Your task to perform on an android device: Clear all items from cart on ebay. Search for macbook on ebay, select the first entry, add it to the cart, then select checkout. Image 0: 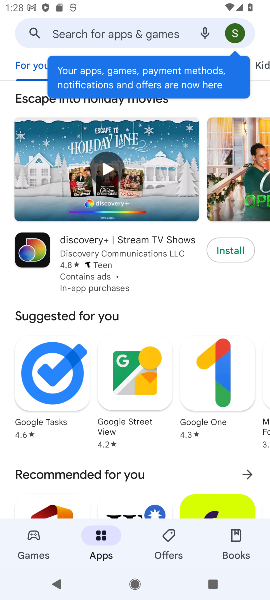
Step 0: press home button
Your task to perform on an android device: Clear all items from cart on ebay. Search for macbook on ebay, select the first entry, add it to the cart, then select checkout. Image 1: 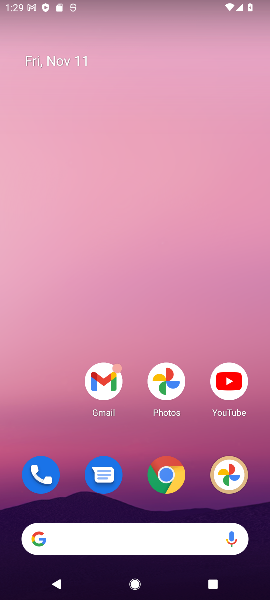
Step 1: drag from (132, 476) to (19, 27)
Your task to perform on an android device: Clear all items from cart on ebay. Search for macbook on ebay, select the first entry, add it to the cart, then select checkout. Image 2: 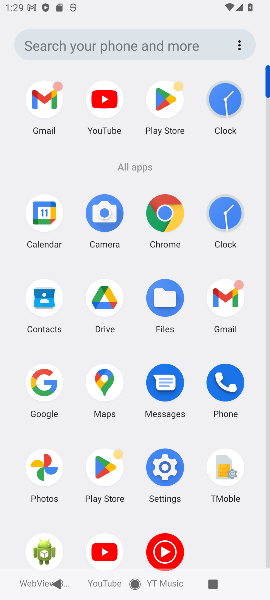
Step 2: click (155, 225)
Your task to perform on an android device: Clear all items from cart on ebay. Search for macbook on ebay, select the first entry, add it to the cart, then select checkout. Image 3: 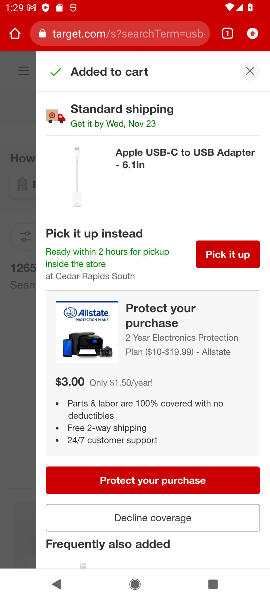
Step 3: click (81, 42)
Your task to perform on an android device: Clear all items from cart on ebay. Search for macbook on ebay, select the first entry, add it to the cart, then select checkout. Image 4: 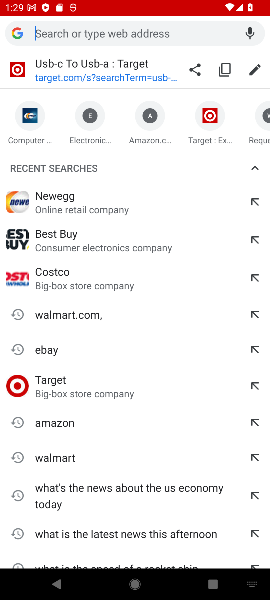
Step 4: type "ebay"
Your task to perform on an android device: Clear all items from cart on ebay. Search for macbook on ebay, select the first entry, add it to the cart, then select checkout. Image 5: 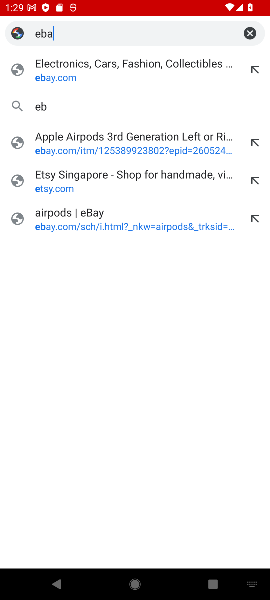
Step 5: press enter
Your task to perform on an android device: Clear all items from cart on ebay. Search for macbook on ebay, select the first entry, add it to the cart, then select checkout. Image 6: 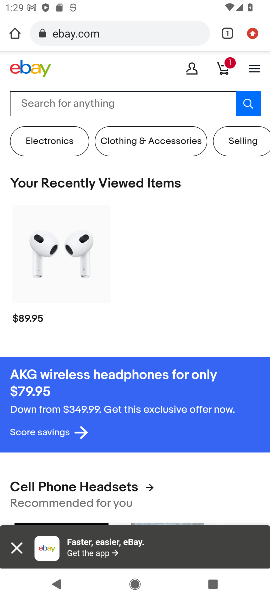
Step 6: click (226, 64)
Your task to perform on an android device: Clear all items from cart on ebay. Search for macbook on ebay, select the first entry, add it to the cart, then select checkout. Image 7: 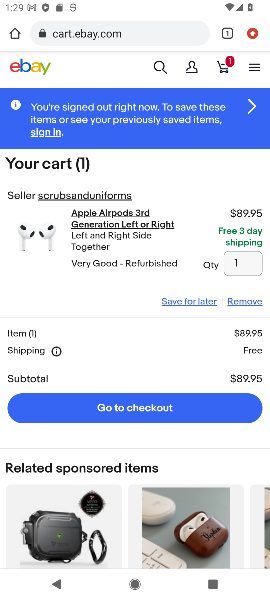
Step 7: click (242, 302)
Your task to perform on an android device: Clear all items from cart on ebay. Search for macbook on ebay, select the first entry, add it to the cart, then select checkout. Image 8: 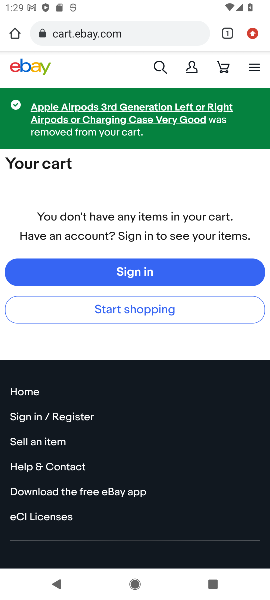
Step 8: click (161, 66)
Your task to perform on an android device: Clear all items from cart on ebay. Search for macbook on ebay, select the first entry, add it to the cart, then select checkout. Image 9: 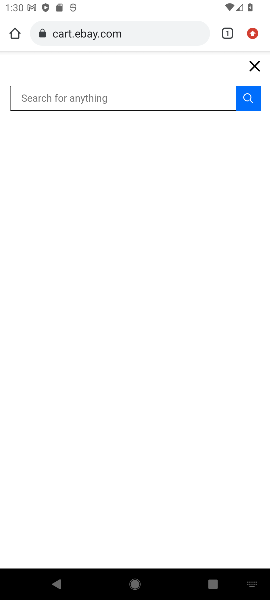
Step 9: type " macbook"
Your task to perform on an android device: Clear all items from cart on ebay. Search for macbook on ebay, select the first entry, add it to the cart, then select checkout. Image 10: 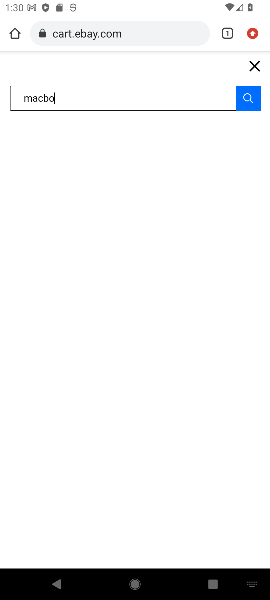
Step 10: press enter
Your task to perform on an android device: Clear all items from cart on ebay. Search for macbook on ebay, select the first entry, add it to the cart, then select checkout. Image 11: 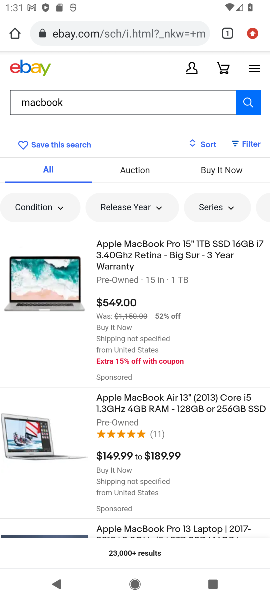
Step 11: click (160, 255)
Your task to perform on an android device: Clear all items from cart on ebay. Search for macbook on ebay, select the first entry, add it to the cart, then select checkout. Image 12: 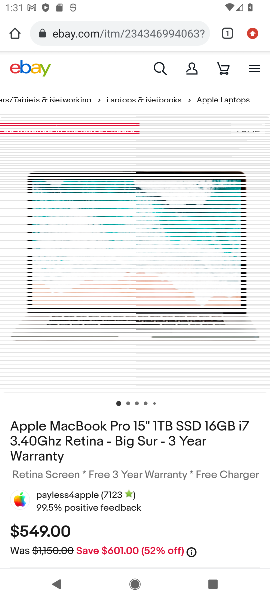
Step 12: drag from (141, 483) to (92, 307)
Your task to perform on an android device: Clear all items from cart on ebay. Search for macbook on ebay, select the first entry, add it to the cart, then select checkout. Image 13: 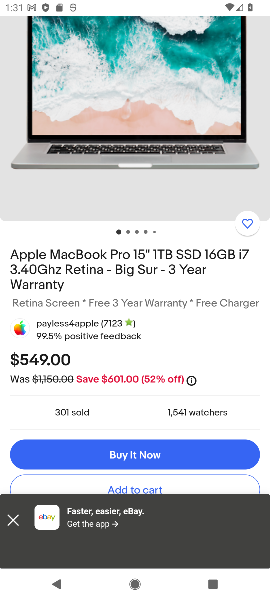
Step 13: drag from (115, 363) to (134, 236)
Your task to perform on an android device: Clear all items from cart on ebay. Search for macbook on ebay, select the first entry, add it to the cart, then select checkout. Image 14: 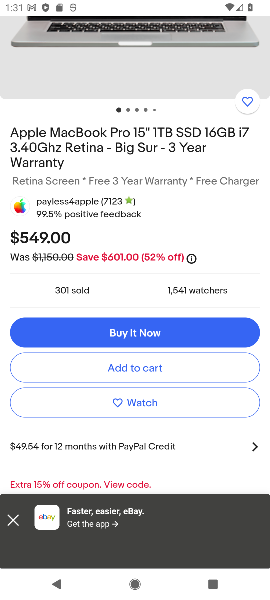
Step 14: click (127, 374)
Your task to perform on an android device: Clear all items from cart on ebay. Search for macbook on ebay, select the first entry, add it to the cart, then select checkout. Image 15: 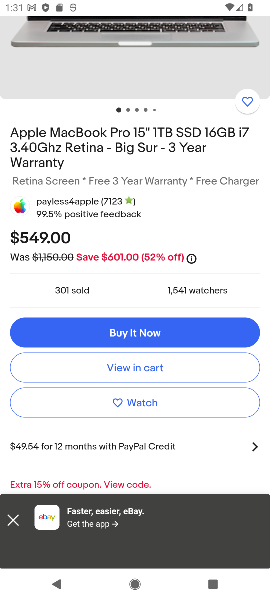
Step 15: click (127, 373)
Your task to perform on an android device: Clear all items from cart on ebay. Search for macbook on ebay, select the first entry, add it to the cart, then select checkout. Image 16: 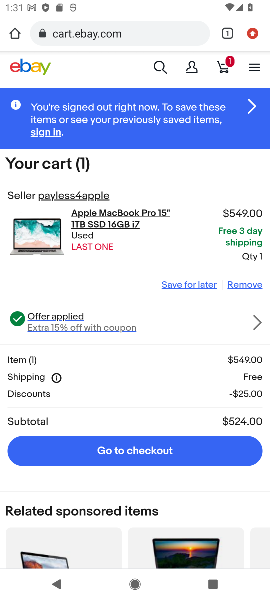
Step 16: click (138, 455)
Your task to perform on an android device: Clear all items from cart on ebay. Search for macbook on ebay, select the first entry, add it to the cart, then select checkout. Image 17: 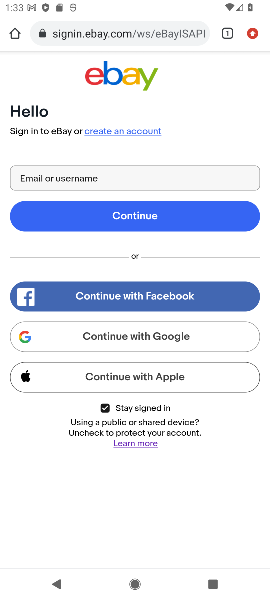
Step 17: task complete